Your task to perform on an android device: clear history in the chrome app Image 0: 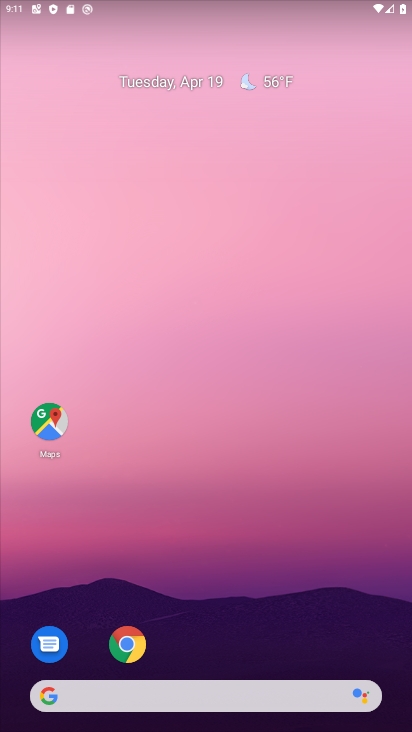
Step 0: click (135, 646)
Your task to perform on an android device: clear history in the chrome app Image 1: 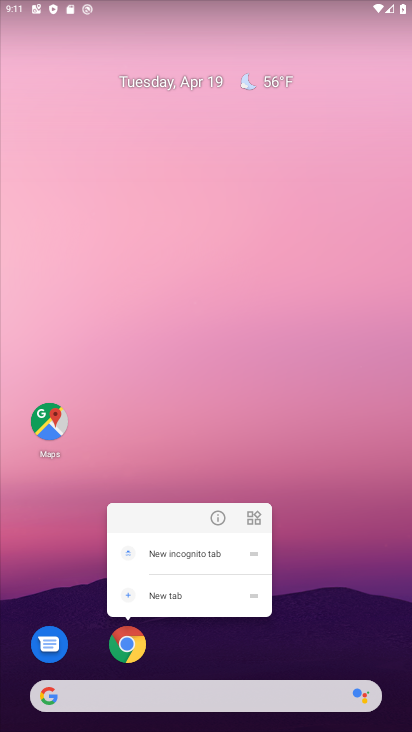
Step 1: click (136, 642)
Your task to perform on an android device: clear history in the chrome app Image 2: 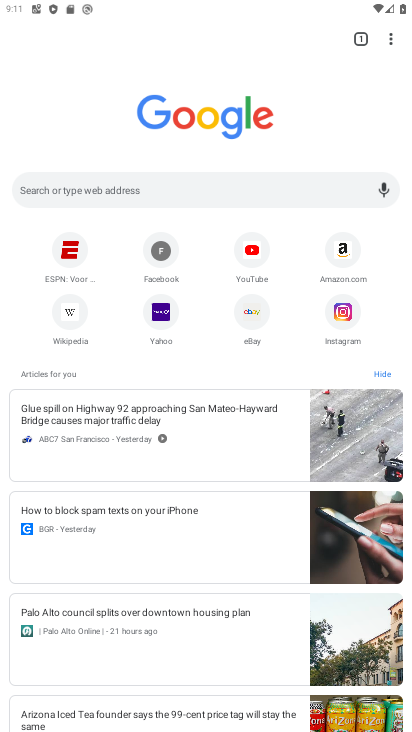
Step 2: click (387, 42)
Your task to perform on an android device: clear history in the chrome app Image 3: 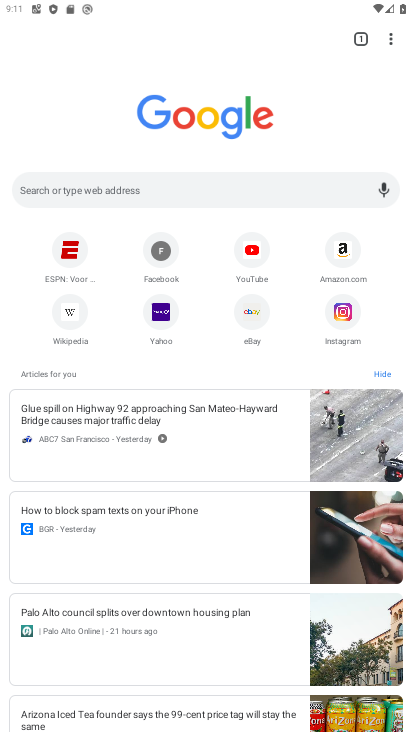
Step 3: click (393, 37)
Your task to perform on an android device: clear history in the chrome app Image 4: 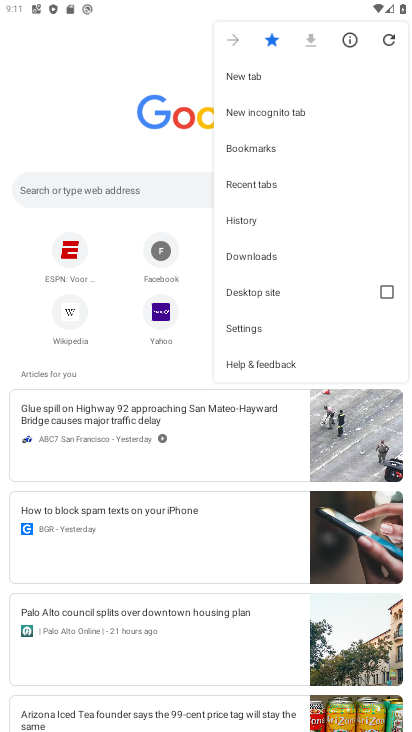
Step 4: click (262, 212)
Your task to perform on an android device: clear history in the chrome app Image 5: 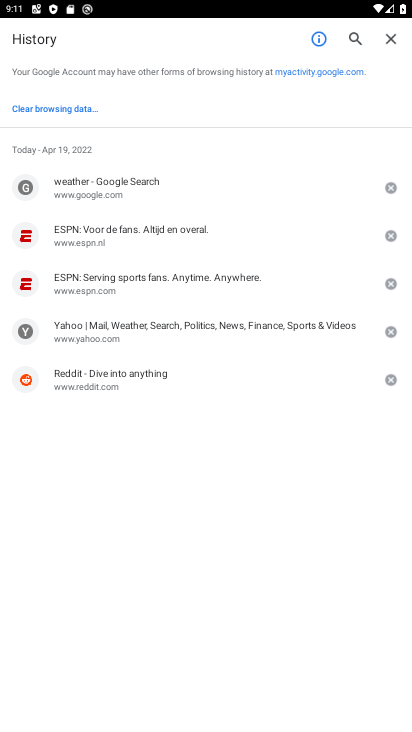
Step 5: click (37, 105)
Your task to perform on an android device: clear history in the chrome app Image 6: 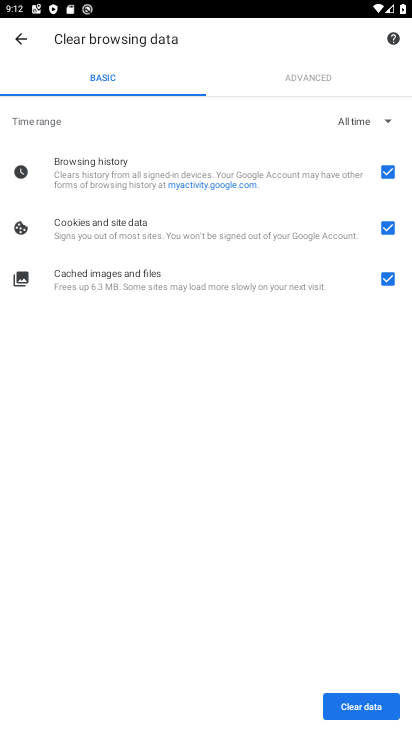
Step 6: click (361, 694)
Your task to perform on an android device: clear history in the chrome app Image 7: 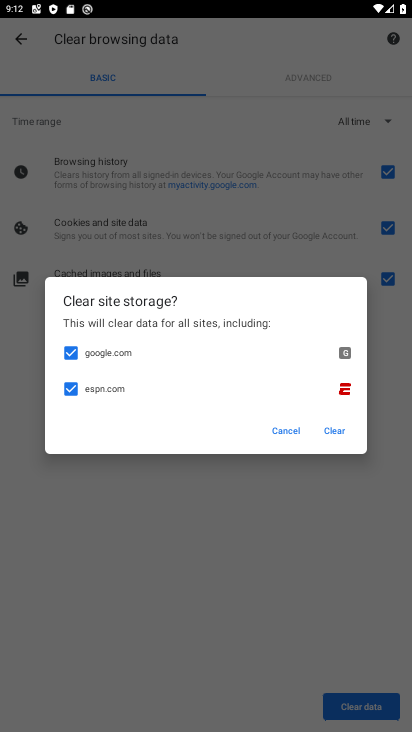
Step 7: click (331, 433)
Your task to perform on an android device: clear history in the chrome app Image 8: 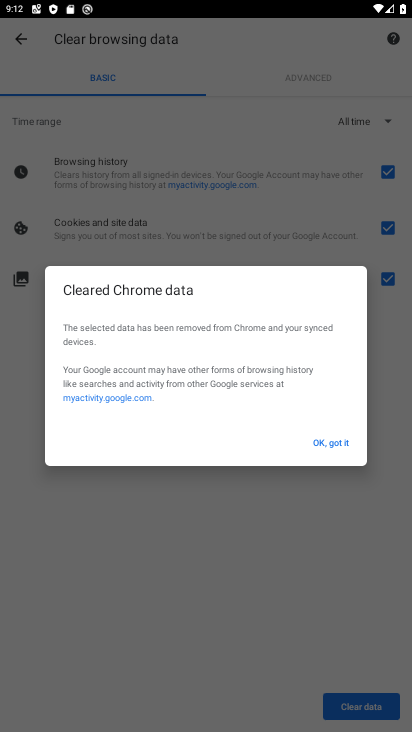
Step 8: click (318, 442)
Your task to perform on an android device: clear history in the chrome app Image 9: 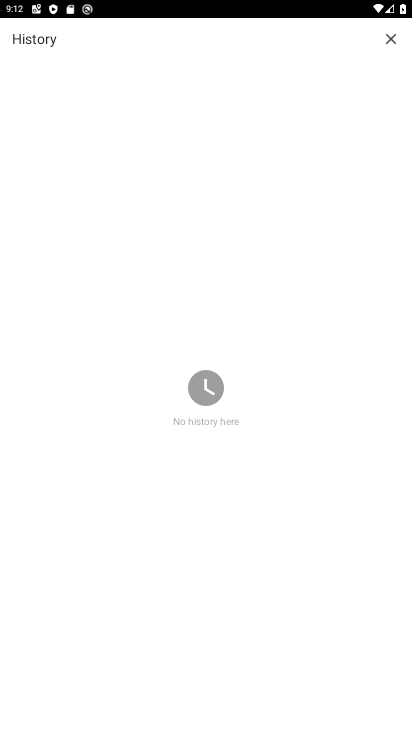
Step 9: task complete